Your task to perform on an android device: toggle improve location accuracy Image 0: 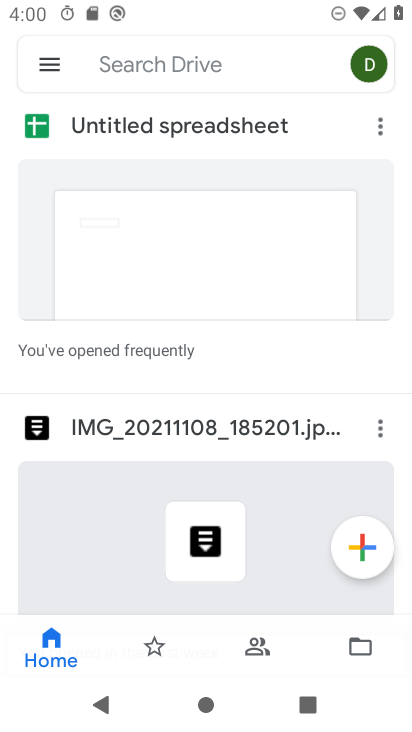
Step 0: drag from (216, 600) to (221, 133)
Your task to perform on an android device: toggle improve location accuracy Image 1: 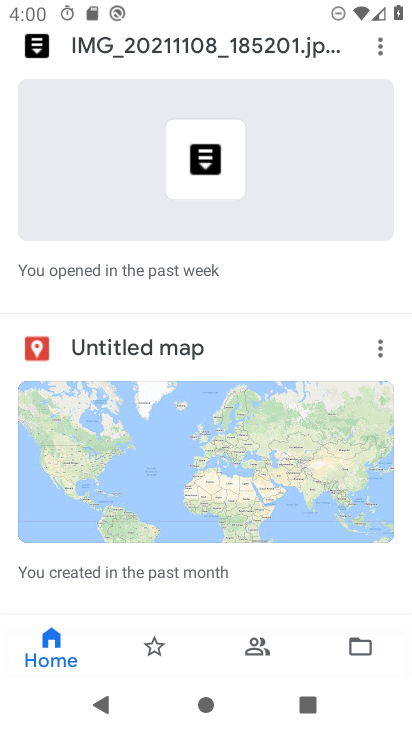
Step 1: press home button
Your task to perform on an android device: toggle improve location accuracy Image 2: 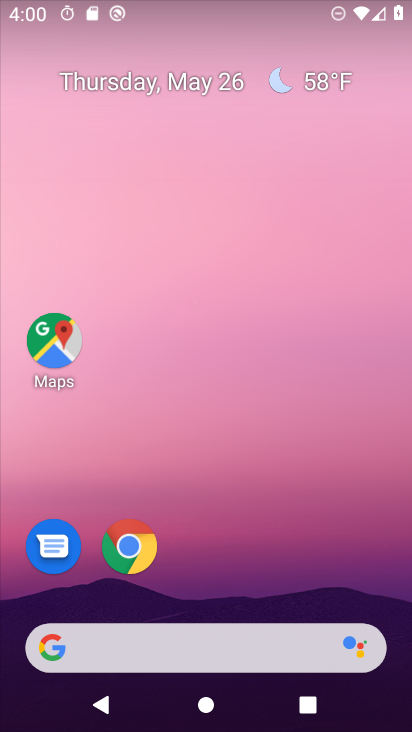
Step 2: press home button
Your task to perform on an android device: toggle improve location accuracy Image 3: 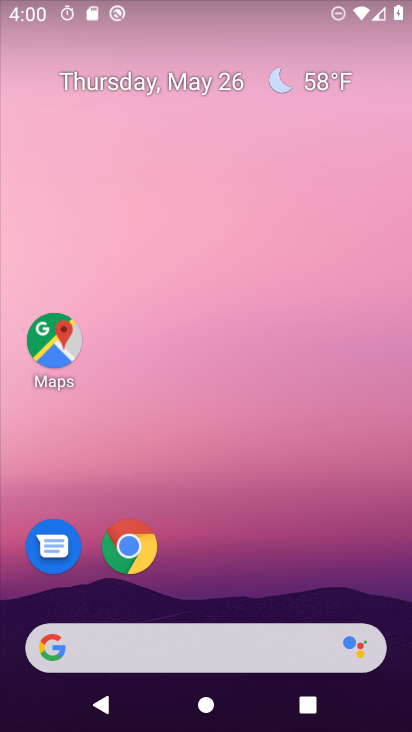
Step 3: drag from (215, 589) to (207, 80)
Your task to perform on an android device: toggle improve location accuracy Image 4: 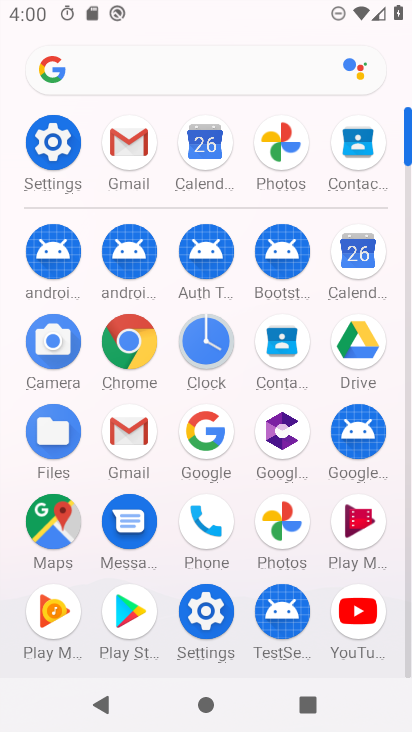
Step 4: click (212, 611)
Your task to perform on an android device: toggle improve location accuracy Image 5: 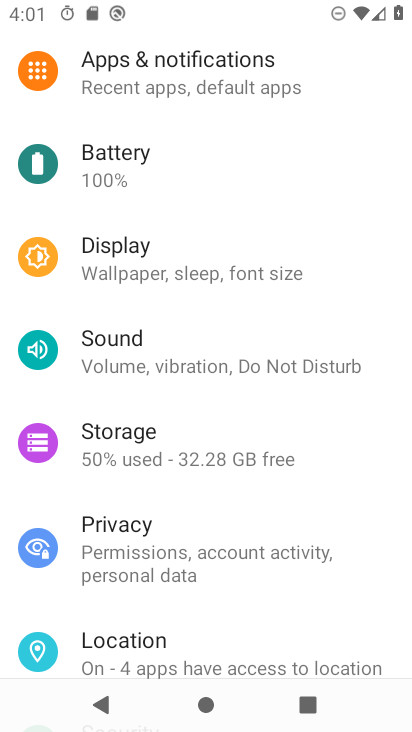
Step 5: click (183, 646)
Your task to perform on an android device: toggle improve location accuracy Image 6: 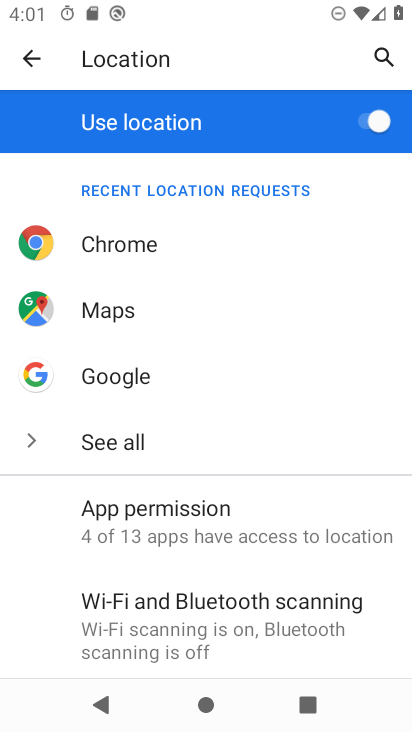
Step 6: drag from (280, 650) to (318, 186)
Your task to perform on an android device: toggle improve location accuracy Image 7: 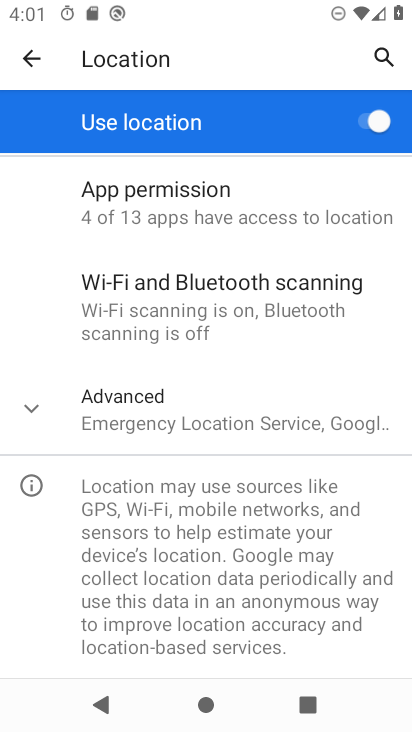
Step 7: click (56, 409)
Your task to perform on an android device: toggle improve location accuracy Image 8: 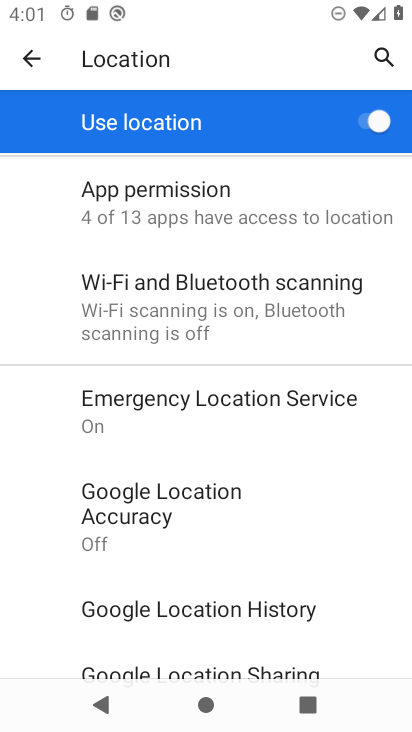
Step 8: click (178, 520)
Your task to perform on an android device: toggle improve location accuracy Image 9: 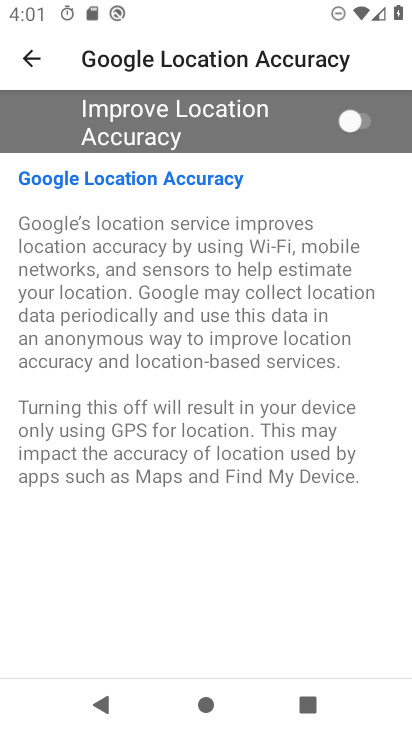
Step 9: click (368, 119)
Your task to perform on an android device: toggle improve location accuracy Image 10: 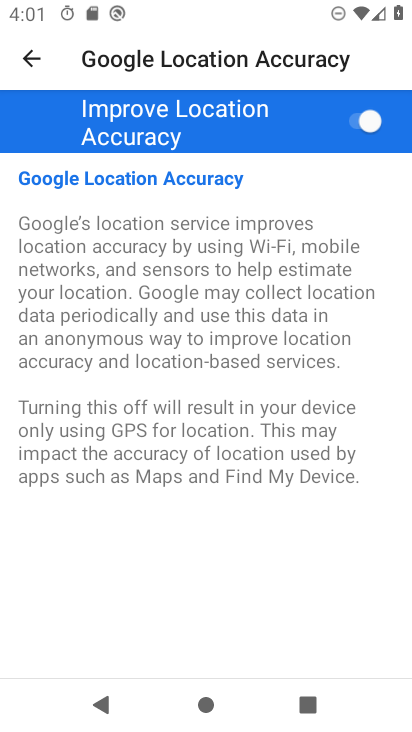
Step 10: task complete